Your task to perform on an android device: star an email in the gmail app Image 0: 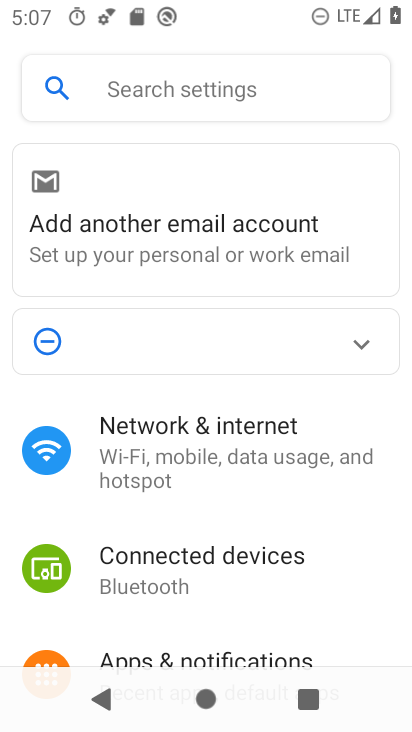
Step 0: press back button
Your task to perform on an android device: star an email in the gmail app Image 1: 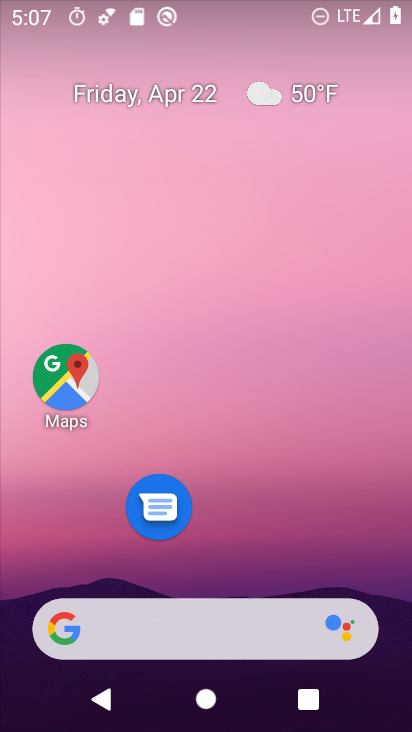
Step 1: drag from (243, 451) to (327, 78)
Your task to perform on an android device: star an email in the gmail app Image 2: 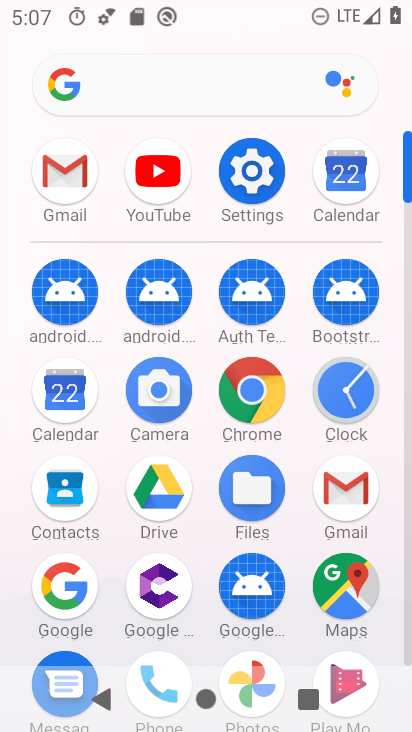
Step 2: click (67, 168)
Your task to perform on an android device: star an email in the gmail app Image 3: 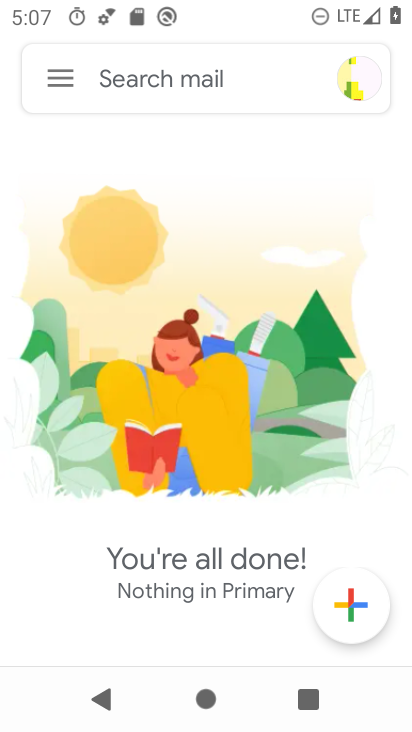
Step 3: click (58, 82)
Your task to perform on an android device: star an email in the gmail app Image 4: 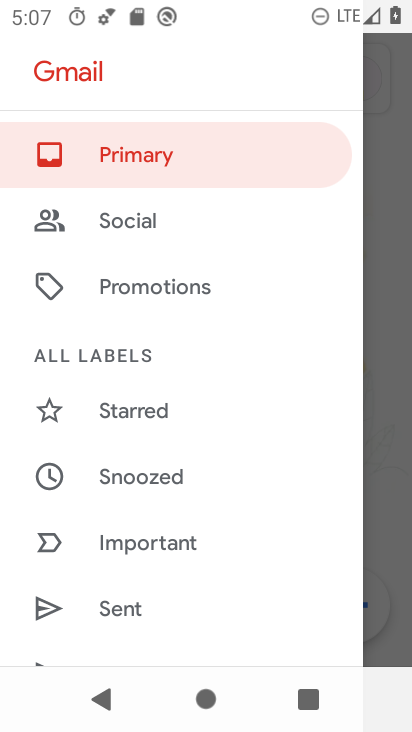
Step 4: drag from (143, 599) to (241, 36)
Your task to perform on an android device: star an email in the gmail app Image 5: 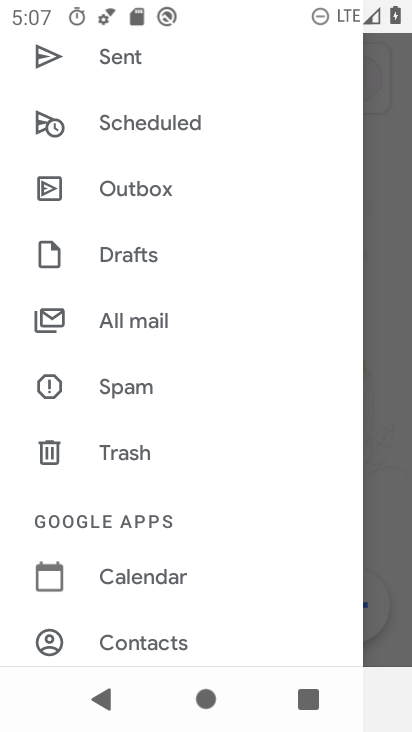
Step 5: click (121, 324)
Your task to perform on an android device: star an email in the gmail app Image 6: 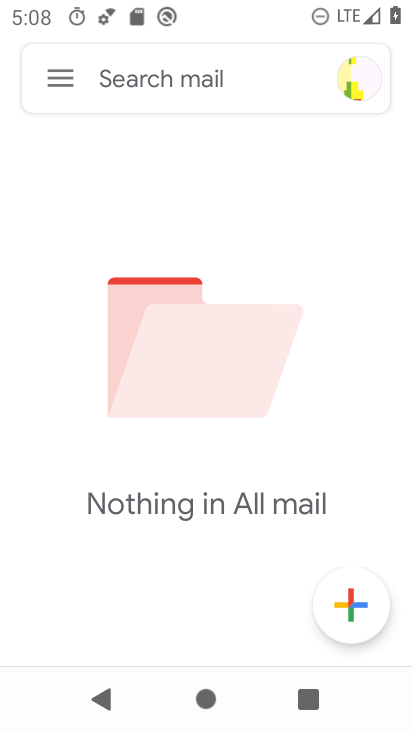
Step 6: task complete